Your task to perform on an android device: Go to location settings Image 0: 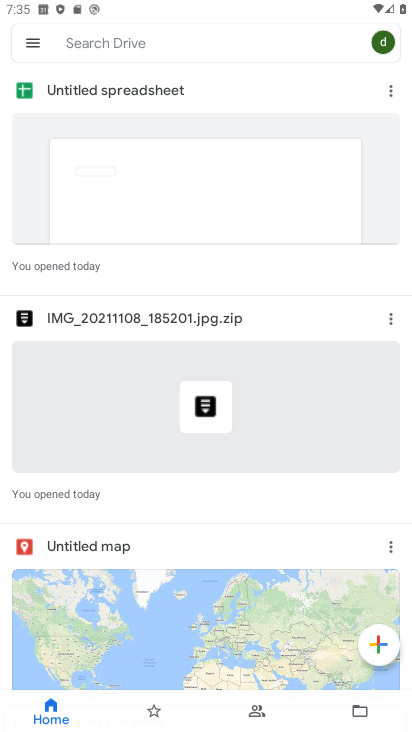
Step 0: press home button
Your task to perform on an android device: Go to location settings Image 1: 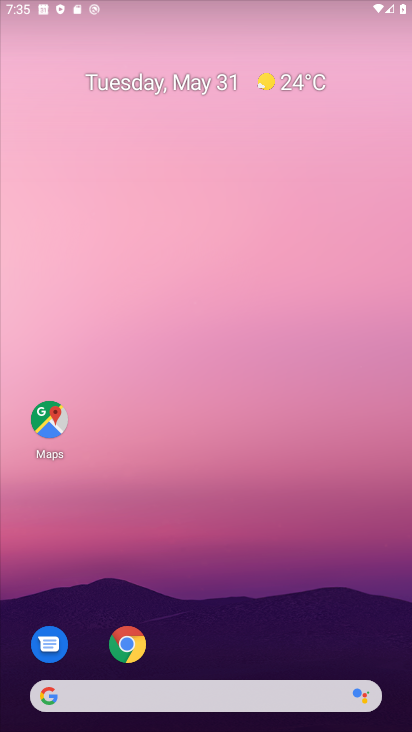
Step 1: drag from (396, 617) to (337, 225)
Your task to perform on an android device: Go to location settings Image 2: 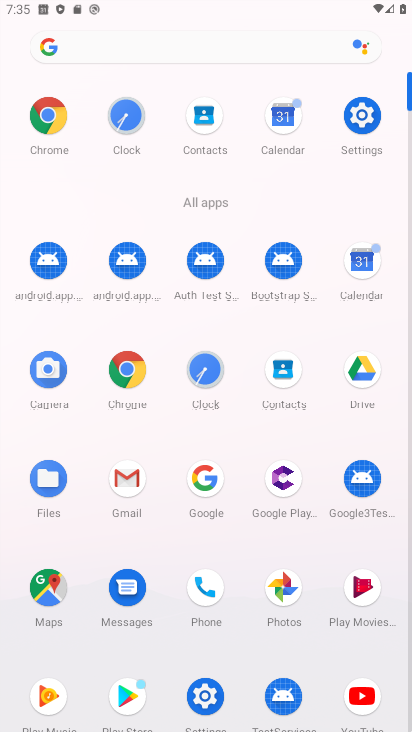
Step 2: click (201, 700)
Your task to perform on an android device: Go to location settings Image 3: 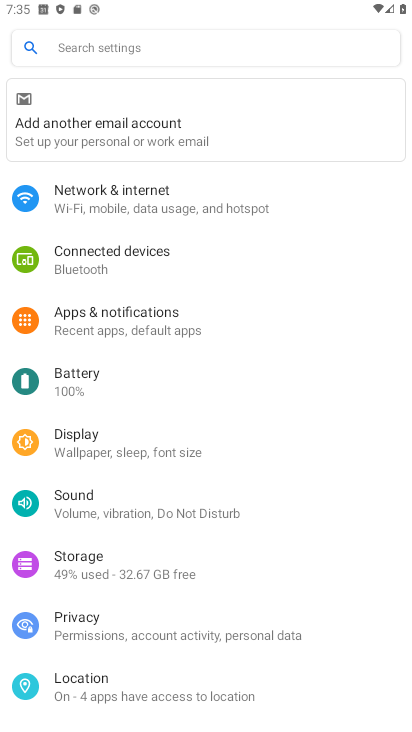
Step 3: click (115, 683)
Your task to perform on an android device: Go to location settings Image 4: 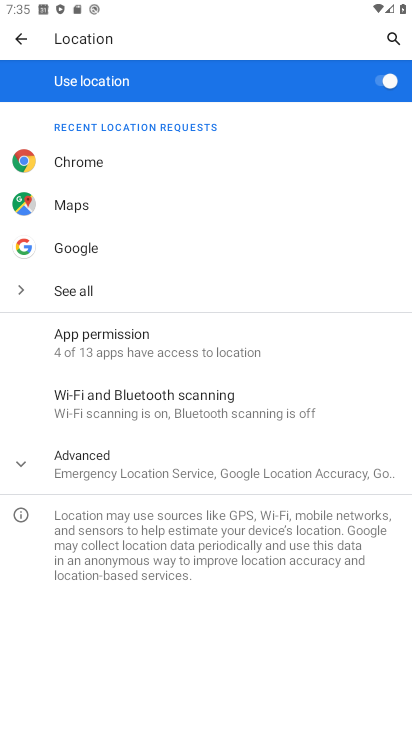
Step 4: click (187, 474)
Your task to perform on an android device: Go to location settings Image 5: 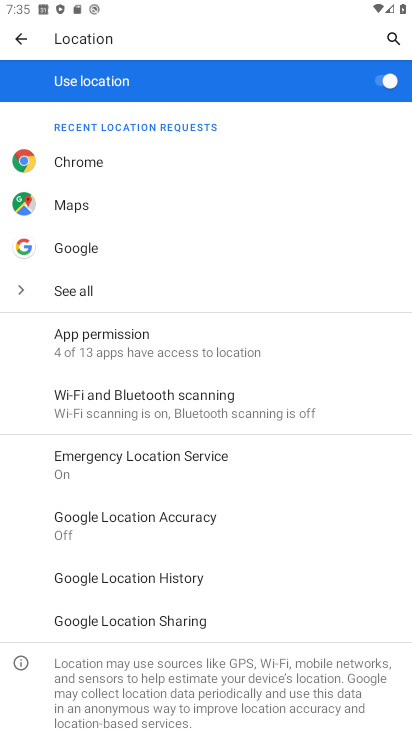
Step 5: click (172, 578)
Your task to perform on an android device: Go to location settings Image 6: 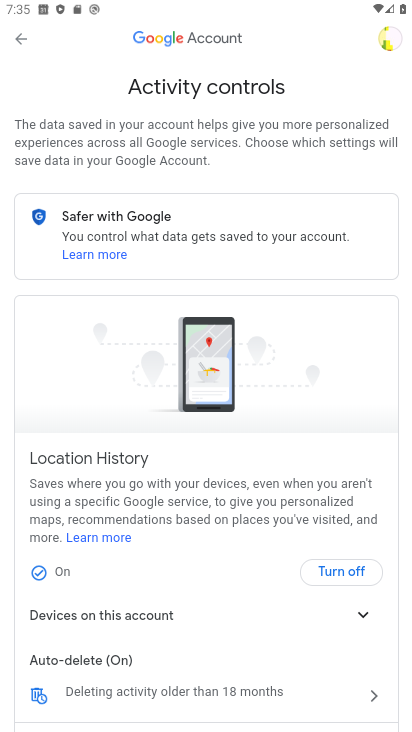
Step 6: drag from (236, 586) to (281, 298)
Your task to perform on an android device: Go to location settings Image 7: 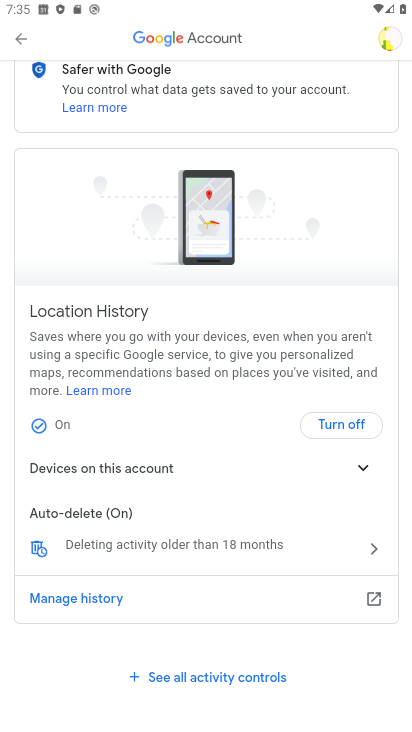
Step 7: click (173, 602)
Your task to perform on an android device: Go to location settings Image 8: 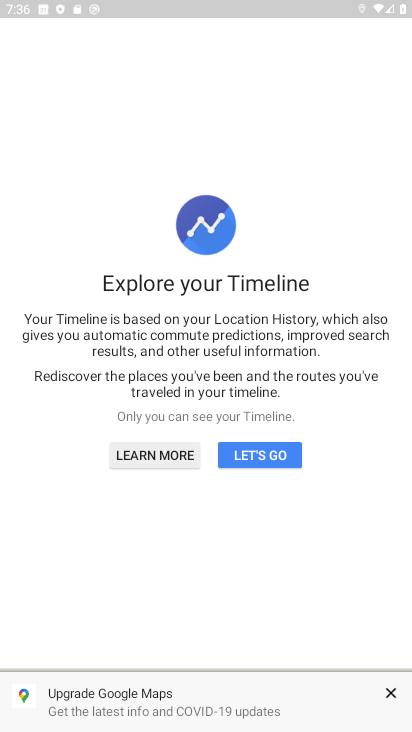
Step 8: click (281, 459)
Your task to perform on an android device: Go to location settings Image 9: 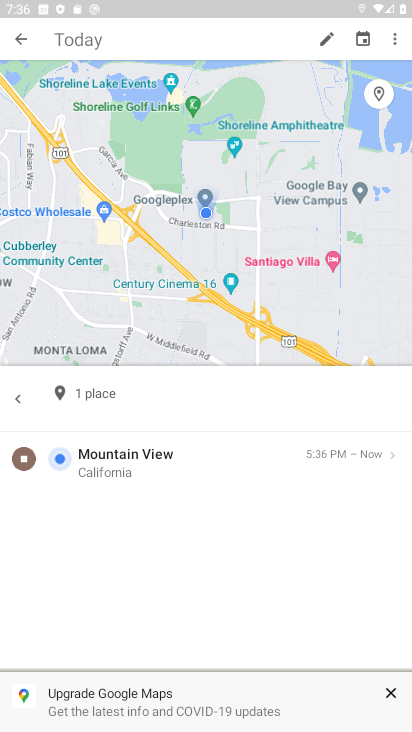
Step 9: click (399, 41)
Your task to perform on an android device: Go to location settings Image 10: 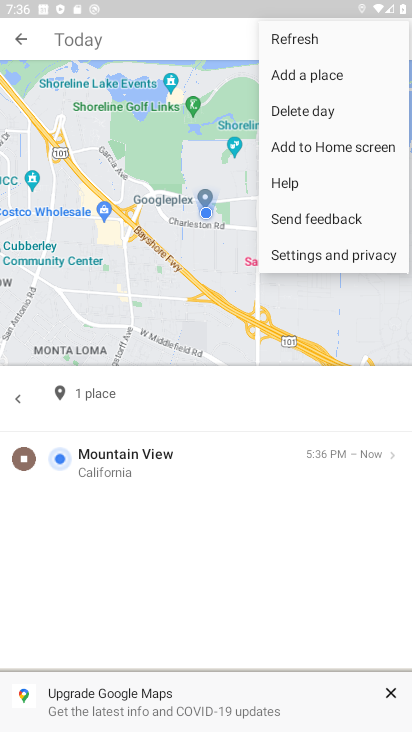
Step 10: click (294, 250)
Your task to perform on an android device: Go to location settings Image 11: 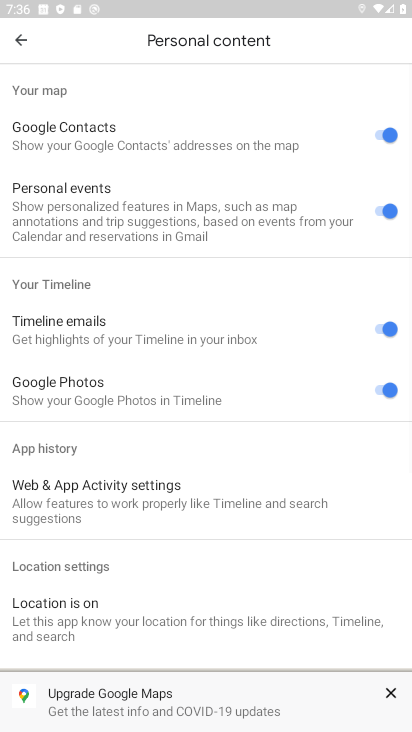
Step 11: task complete